Your task to perform on an android device: turn on location history Image 0: 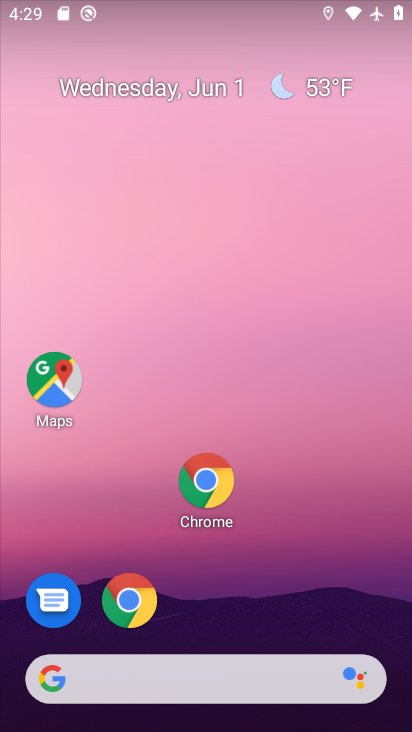
Step 0: drag from (284, 500) to (228, 195)
Your task to perform on an android device: turn on location history Image 1: 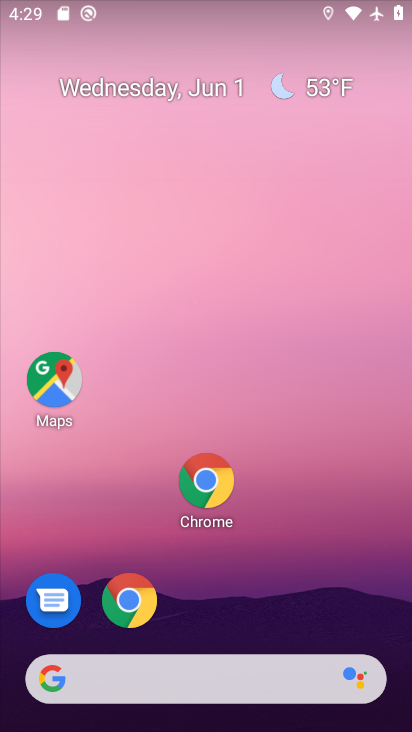
Step 1: drag from (278, 724) to (202, 289)
Your task to perform on an android device: turn on location history Image 2: 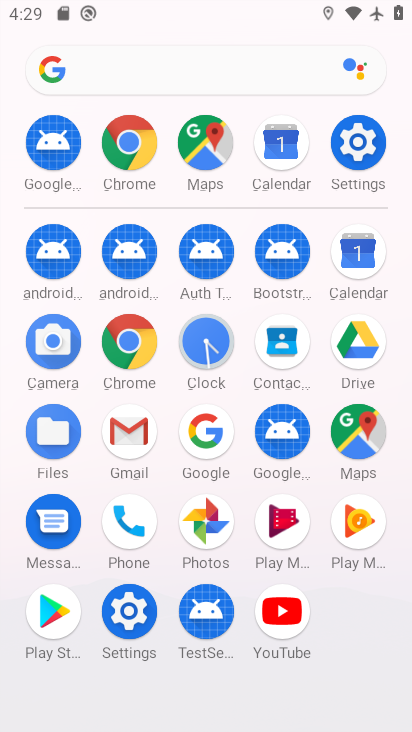
Step 2: click (365, 438)
Your task to perform on an android device: turn on location history Image 3: 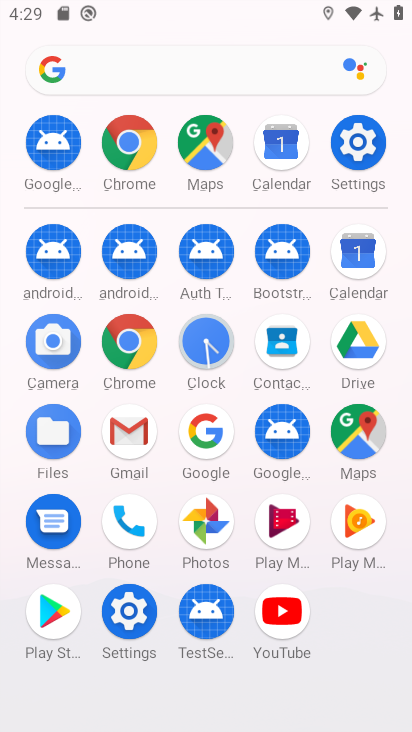
Step 3: click (365, 438)
Your task to perform on an android device: turn on location history Image 4: 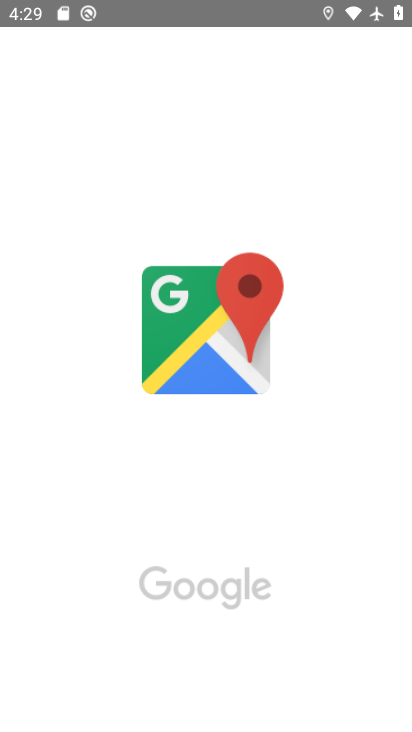
Step 4: click (362, 427)
Your task to perform on an android device: turn on location history Image 5: 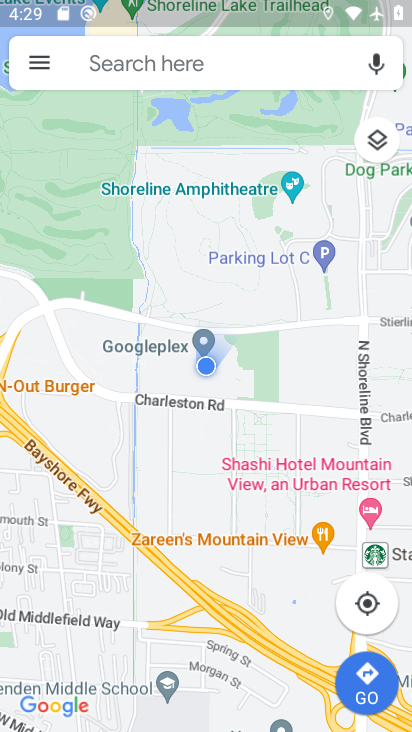
Step 5: click (49, 66)
Your task to perform on an android device: turn on location history Image 6: 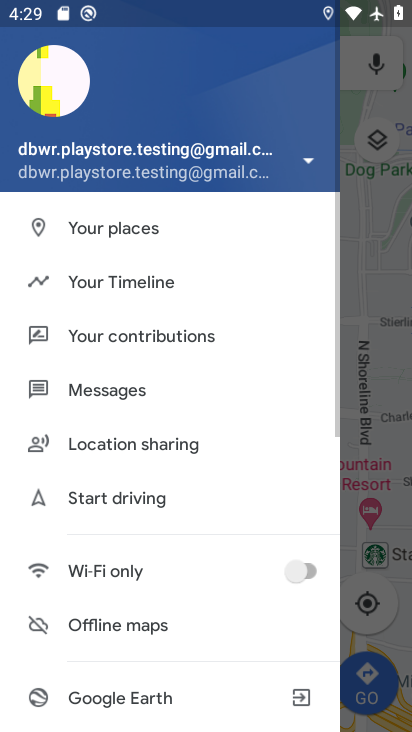
Step 6: click (143, 289)
Your task to perform on an android device: turn on location history Image 7: 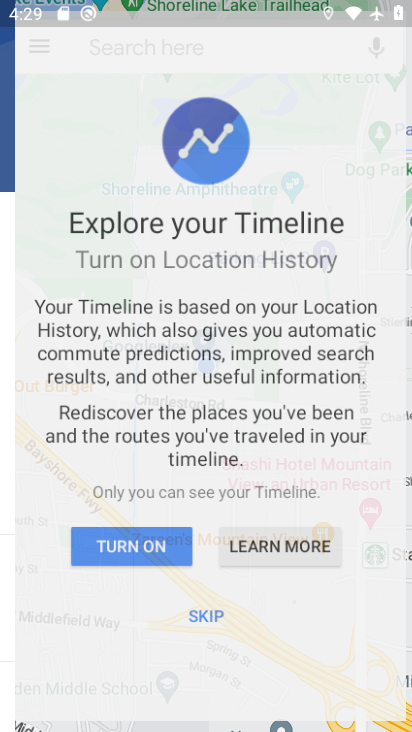
Step 7: click (138, 286)
Your task to perform on an android device: turn on location history Image 8: 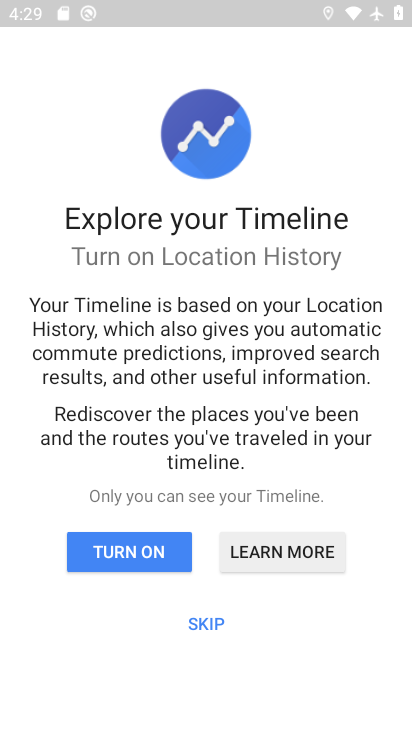
Step 8: click (139, 282)
Your task to perform on an android device: turn on location history Image 9: 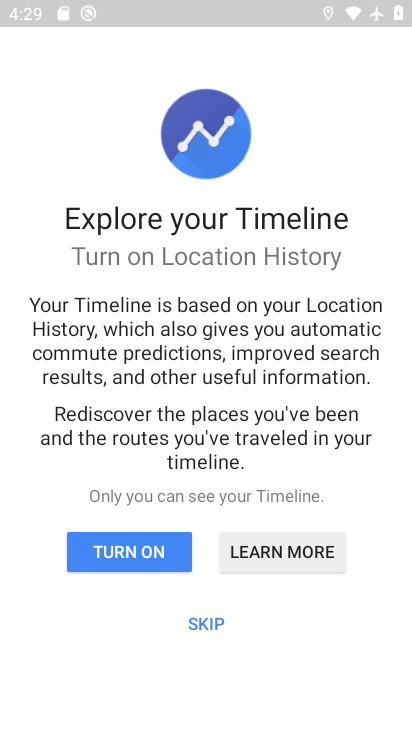
Step 9: click (142, 545)
Your task to perform on an android device: turn on location history Image 10: 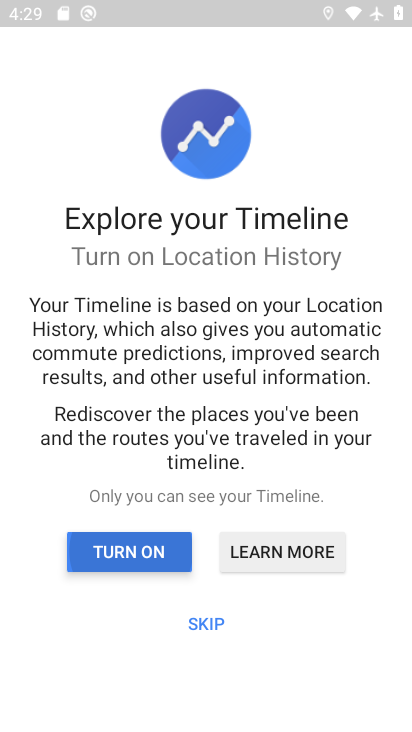
Step 10: click (145, 545)
Your task to perform on an android device: turn on location history Image 11: 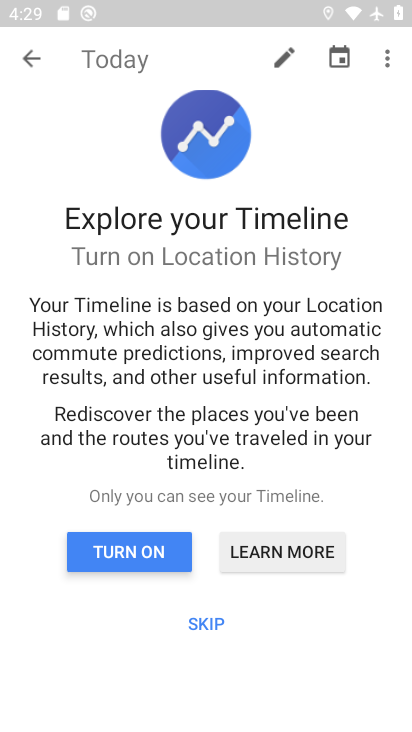
Step 11: click (143, 544)
Your task to perform on an android device: turn on location history Image 12: 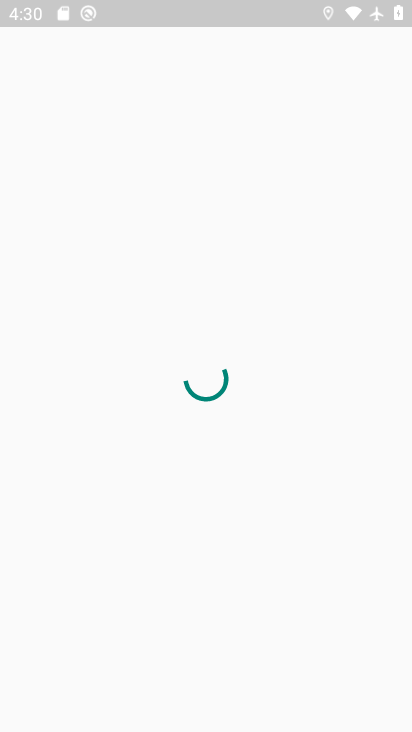
Step 12: click (387, 65)
Your task to perform on an android device: turn on location history Image 13: 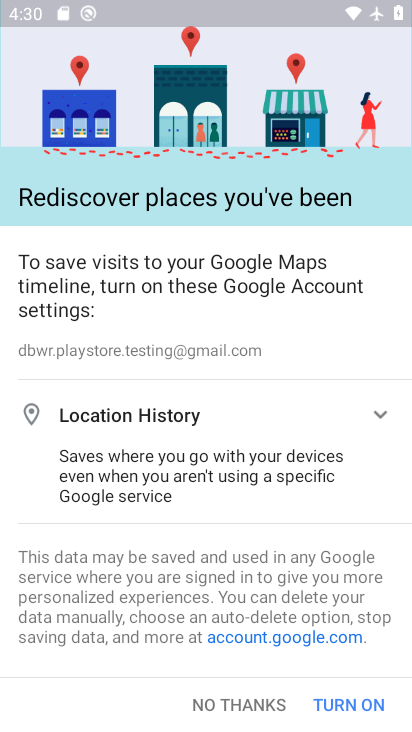
Step 13: click (349, 699)
Your task to perform on an android device: turn on location history Image 14: 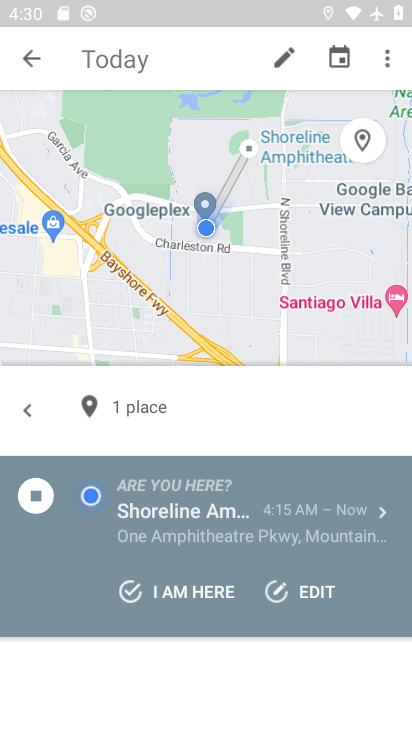
Step 14: task complete